Your task to perform on an android device: check out phone information Image 0: 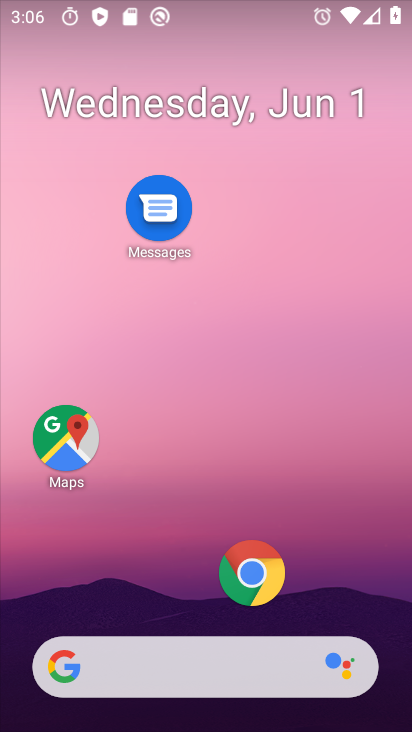
Step 0: drag from (179, 602) to (213, 230)
Your task to perform on an android device: check out phone information Image 1: 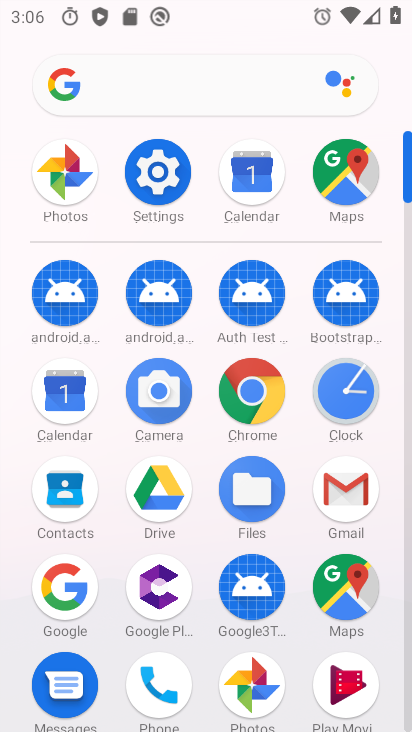
Step 1: click (165, 176)
Your task to perform on an android device: check out phone information Image 2: 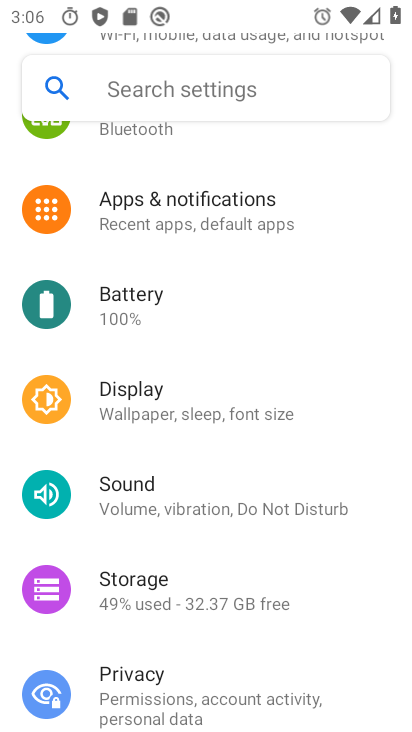
Step 2: drag from (178, 254) to (190, 480)
Your task to perform on an android device: check out phone information Image 3: 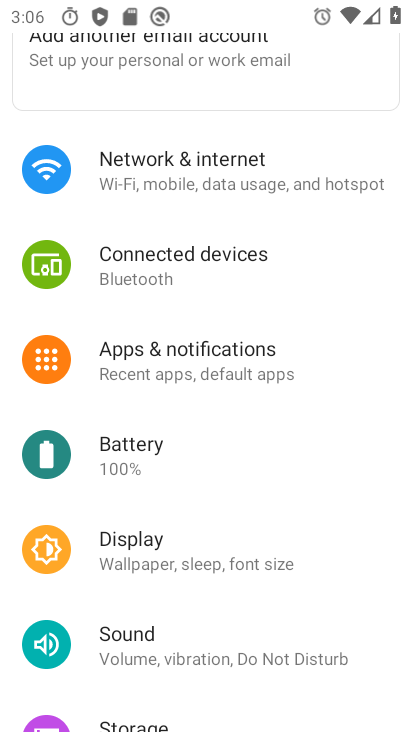
Step 3: drag from (207, 646) to (215, 163)
Your task to perform on an android device: check out phone information Image 4: 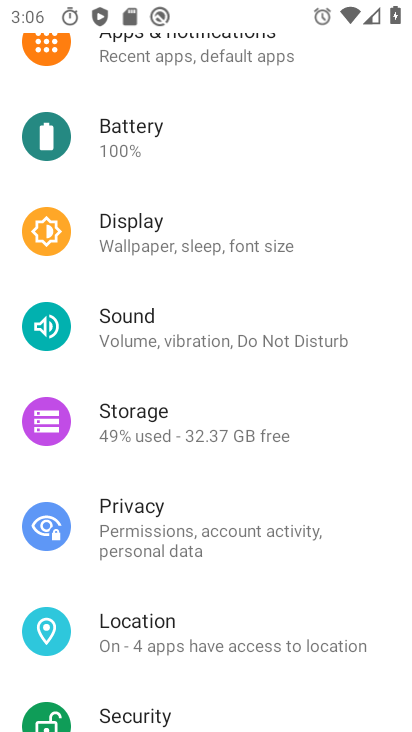
Step 4: drag from (218, 632) to (240, 241)
Your task to perform on an android device: check out phone information Image 5: 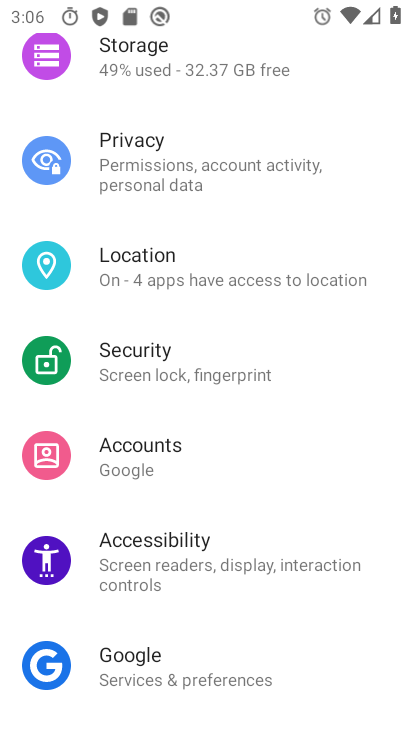
Step 5: drag from (207, 610) to (216, 355)
Your task to perform on an android device: check out phone information Image 6: 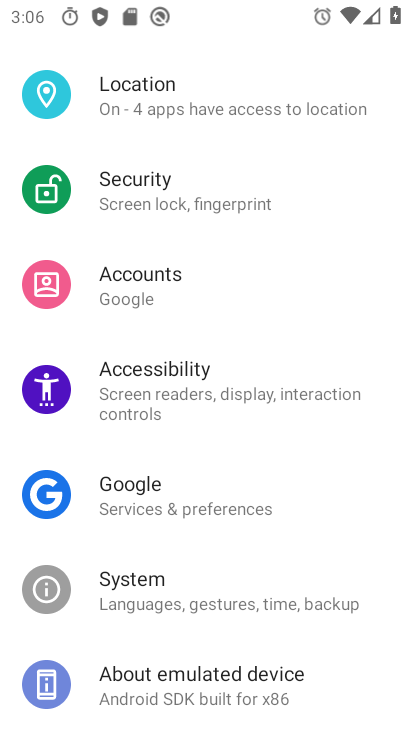
Step 6: drag from (207, 607) to (220, 308)
Your task to perform on an android device: check out phone information Image 7: 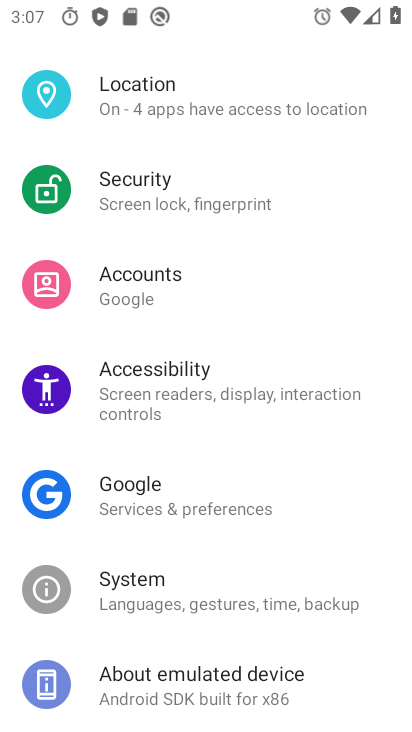
Step 7: drag from (207, 677) to (231, 525)
Your task to perform on an android device: check out phone information Image 8: 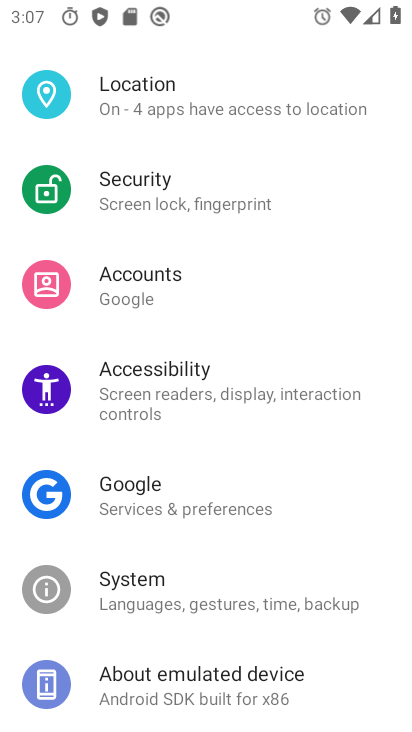
Step 8: drag from (183, 684) to (200, 573)
Your task to perform on an android device: check out phone information Image 9: 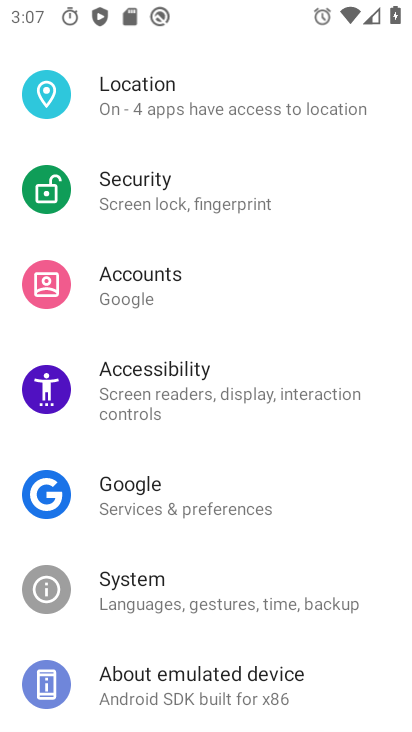
Step 9: click (181, 688)
Your task to perform on an android device: check out phone information Image 10: 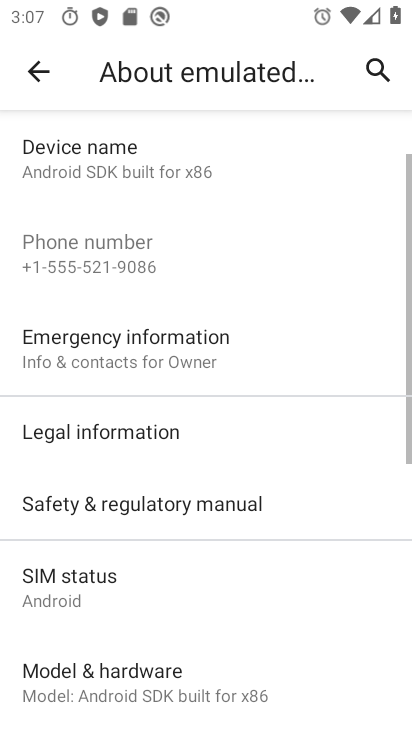
Step 10: task complete